Your task to perform on an android device: toggle priority inbox in the gmail app Image 0: 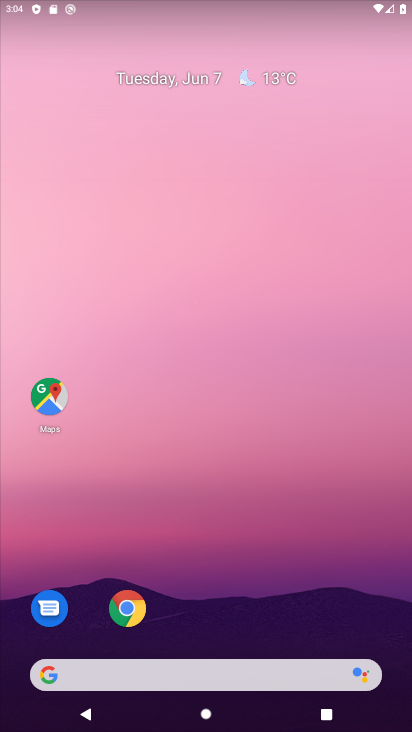
Step 0: drag from (126, 651) to (262, 82)
Your task to perform on an android device: toggle priority inbox in the gmail app Image 1: 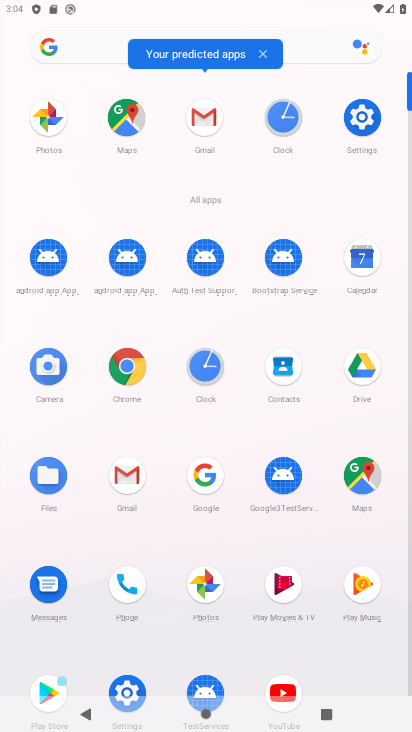
Step 1: click (127, 470)
Your task to perform on an android device: toggle priority inbox in the gmail app Image 2: 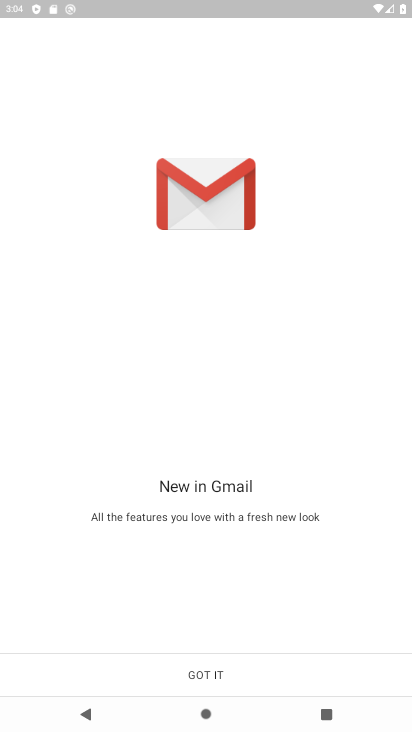
Step 2: click (220, 667)
Your task to perform on an android device: toggle priority inbox in the gmail app Image 3: 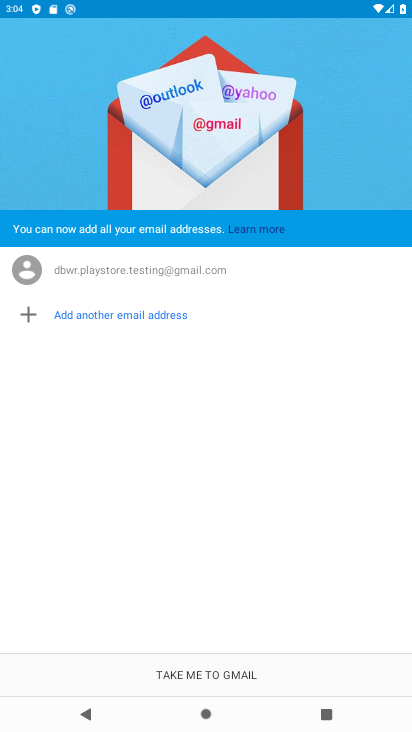
Step 3: click (222, 666)
Your task to perform on an android device: toggle priority inbox in the gmail app Image 4: 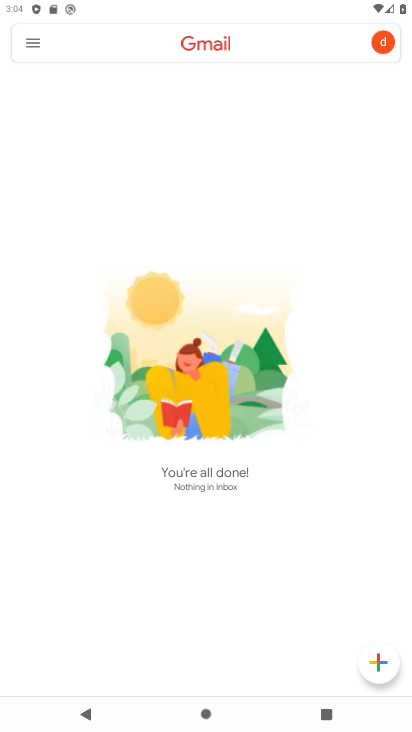
Step 4: click (32, 49)
Your task to perform on an android device: toggle priority inbox in the gmail app Image 5: 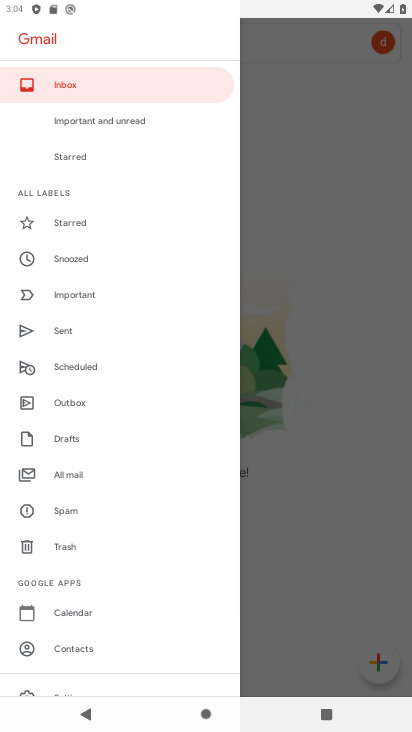
Step 5: drag from (101, 615) to (177, 336)
Your task to perform on an android device: toggle priority inbox in the gmail app Image 6: 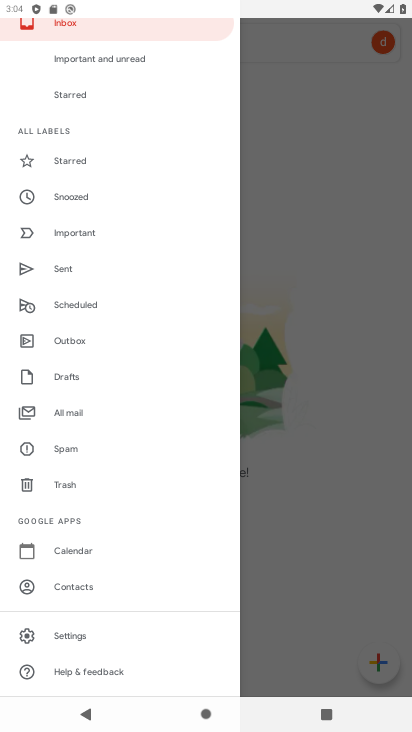
Step 6: click (108, 641)
Your task to perform on an android device: toggle priority inbox in the gmail app Image 7: 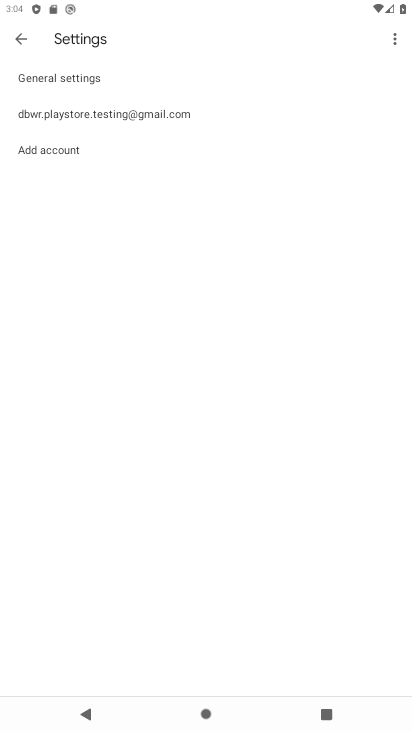
Step 7: click (136, 110)
Your task to perform on an android device: toggle priority inbox in the gmail app Image 8: 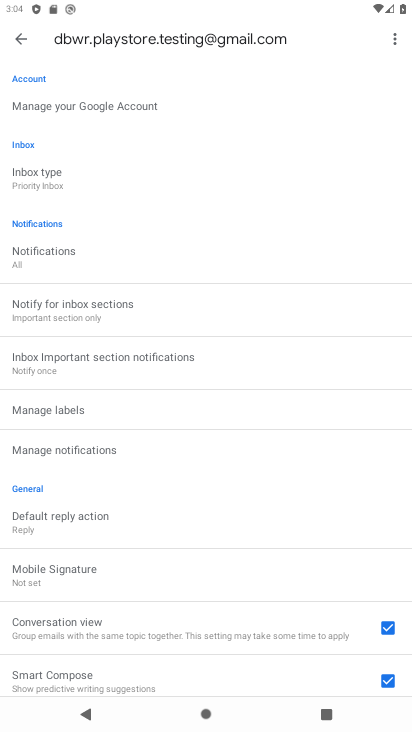
Step 8: click (79, 184)
Your task to perform on an android device: toggle priority inbox in the gmail app Image 9: 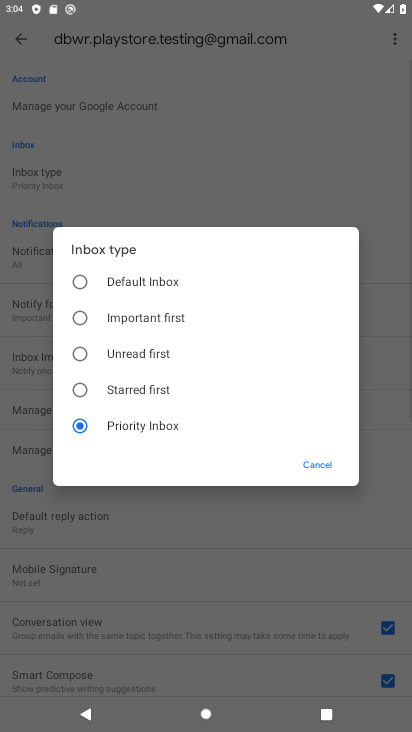
Step 9: click (205, 288)
Your task to perform on an android device: toggle priority inbox in the gmail app Image 10: 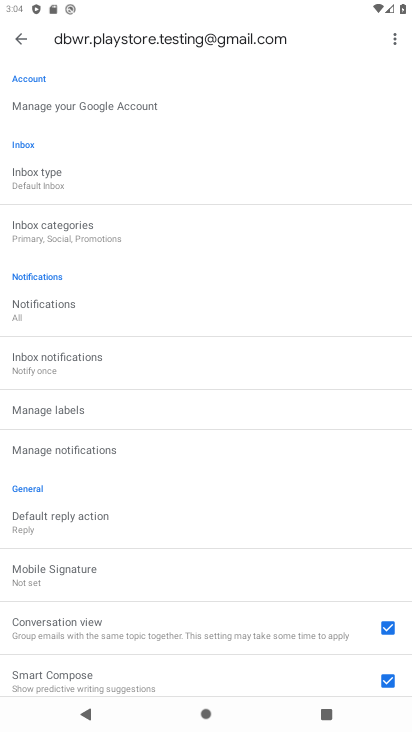
Step 10: task complete